Your task to perform on an android device: Open internet settings Image 0: 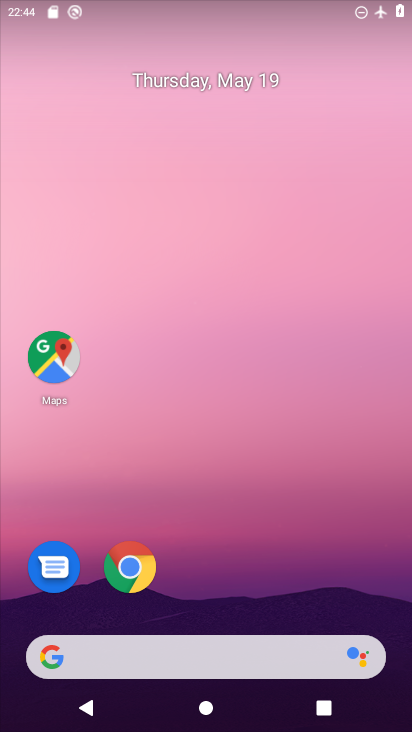
Step 0: drag from (219, 612) to (253, 0)
Your task to perform on an android device: Open internet settings Image 1: 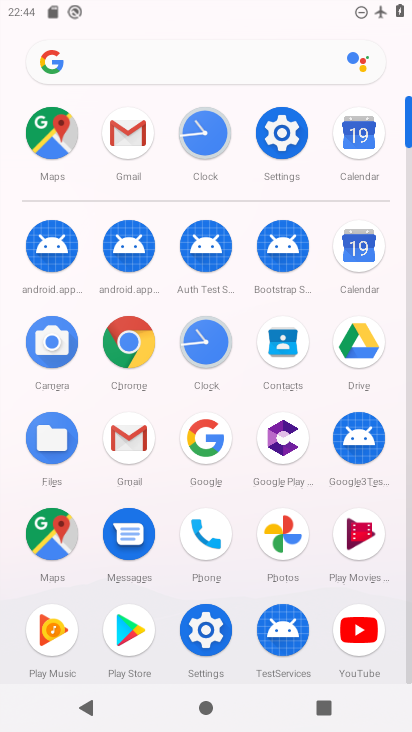
Step 1: click (280, 130)
Your task to perform on an android device: Open internet settings Image 2: 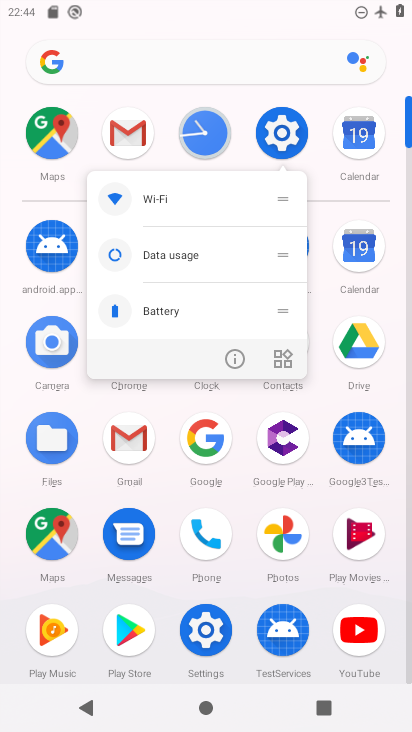
Step 2: click (281, 127)
Your task to perform on an android device: Open internet settings Image 3: 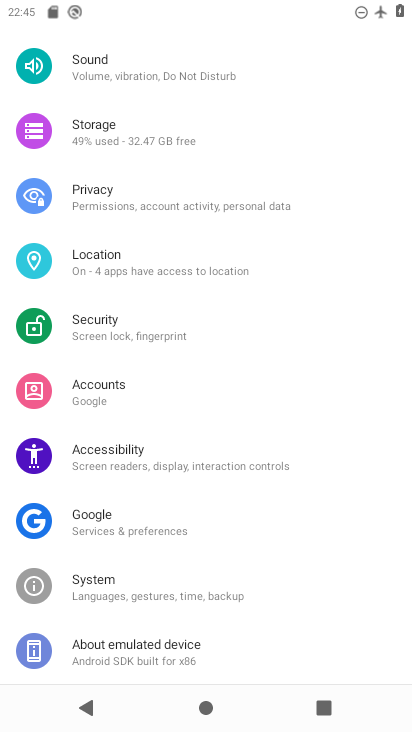
Step 3: drag from (148, 98) to (180, 655)
Your task to perform on an android device: Open internet settings Image 4: 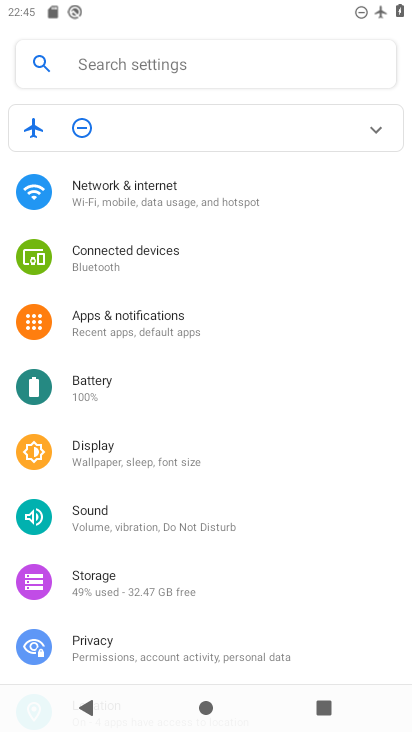
Step 4: click (186, 183)
Your task to perform on an android device: Open internet settings Image 5: 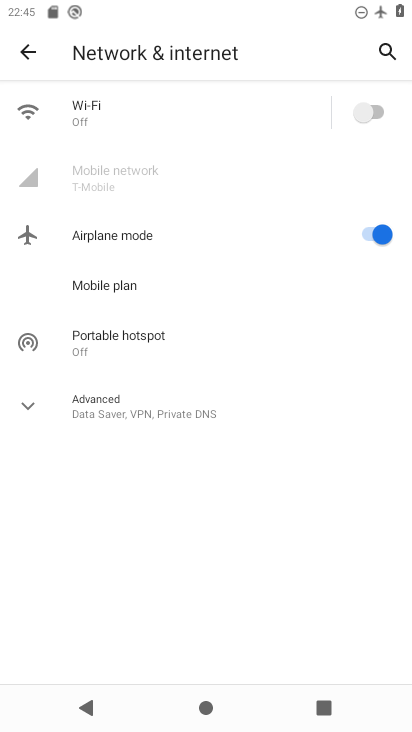
Step 5: click (26, 404)
Your task to perform on an android device: Open internet settings Image 6: 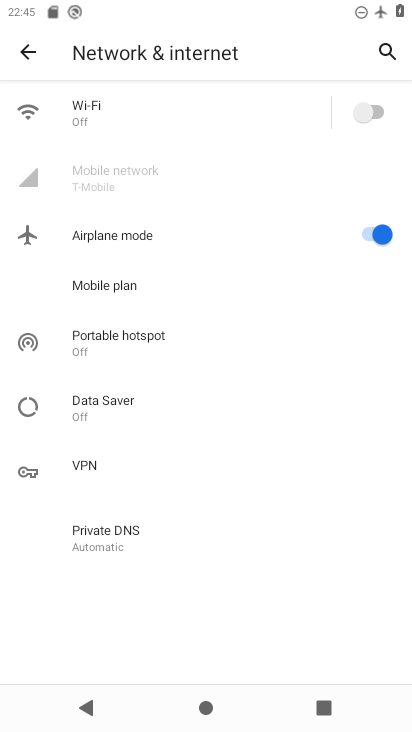
Step 6: task complete